Your task to perform on an android device: turn off notifications in google photos Image 0: 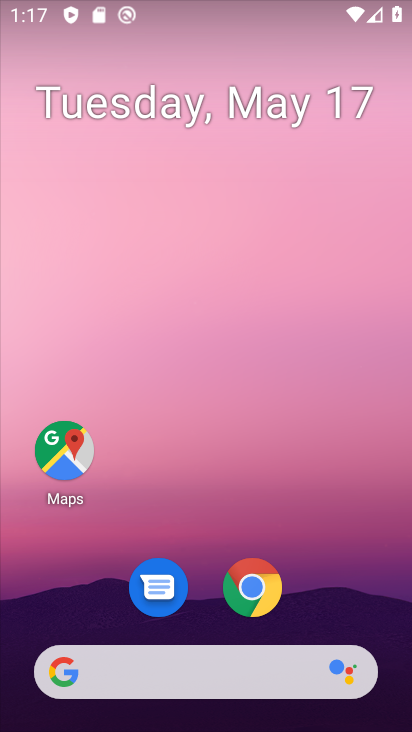
Step 0: drag from (357, 588) to (361, 224)
Your task to perform on an android device: turn off notifications in google photos Image 1: 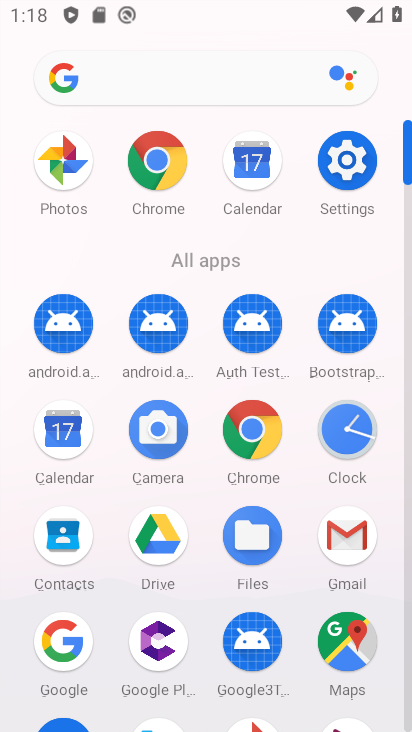
Step 1: drag from (214, 576) to (220, 357)
Your task to perform on an android device: turn off notifications in google photos Image 2: 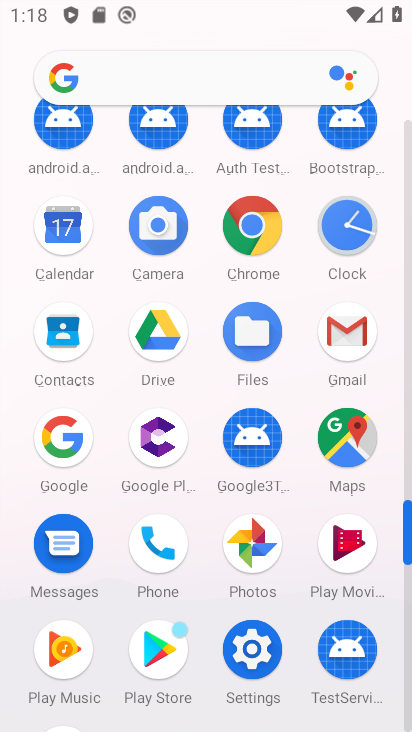
Step 2: click (262, 524)
Your task to perform on an android device: turn off notifications in google photos Image 3: 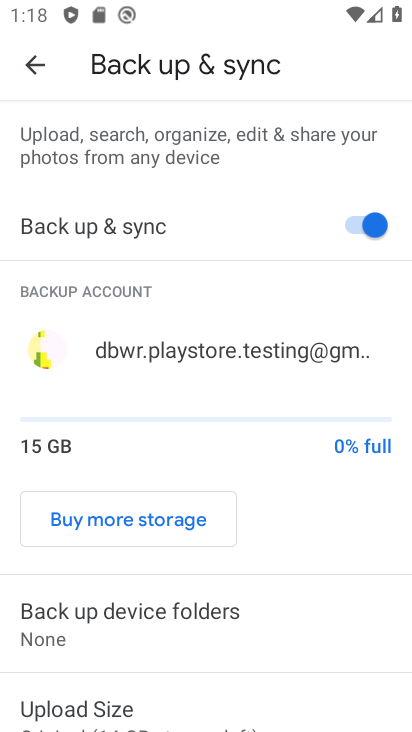
Step 3: click (28, 65)
Your task to perform on an android device: turn off notifications in google photos Image 4: 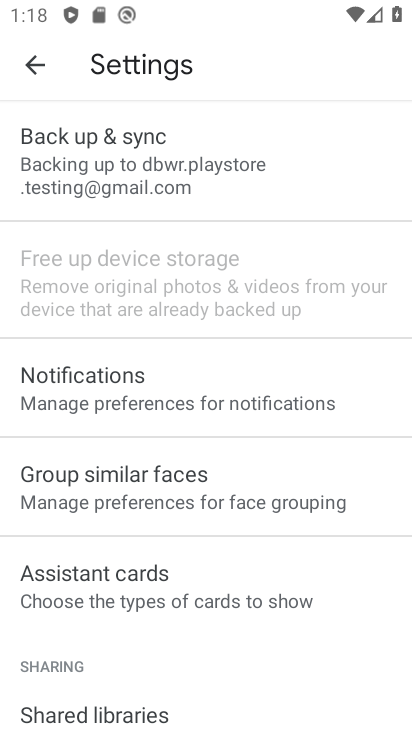
Step 4: click (109, 382)
Your task to perform on an android device: turn off notifications in google photos Image 5: 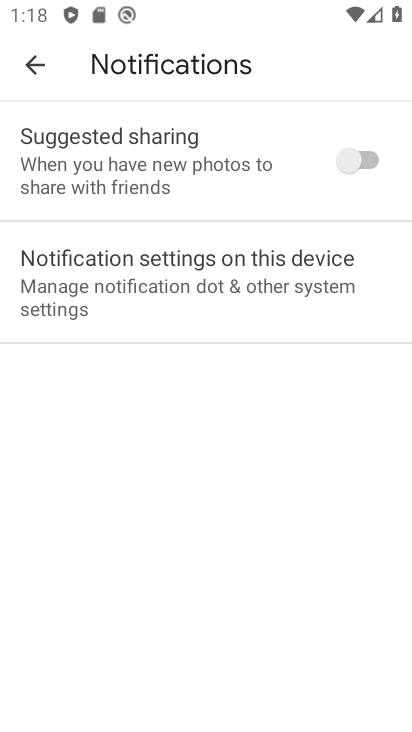
Step 5: click (129, 269)
Your task to perform on an android device: turn off notifications in google photos Image 6: 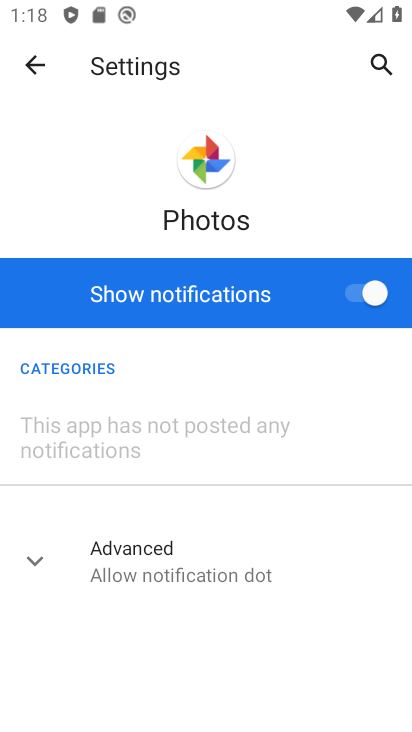
Step 6: click (373, 291)
Your task to perform on an android device: turn off notifications in google photos Image 7: 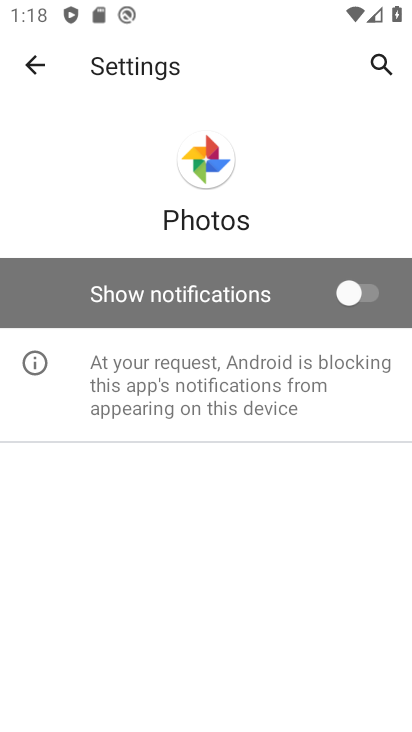
Step 7: task complete